Your task to perform on an android device: make emails show in primary in the gmail app Image 0: 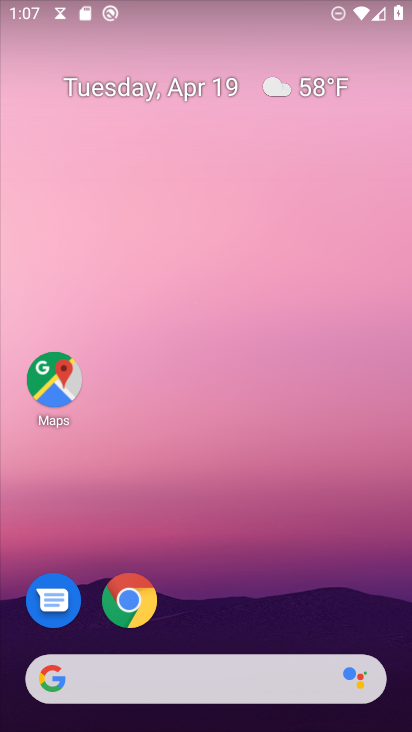
Step 0: drag from (257, 675) to (51, 2)
Your task to perform on an android device: make emails show in primary in the gmail app Image 1: 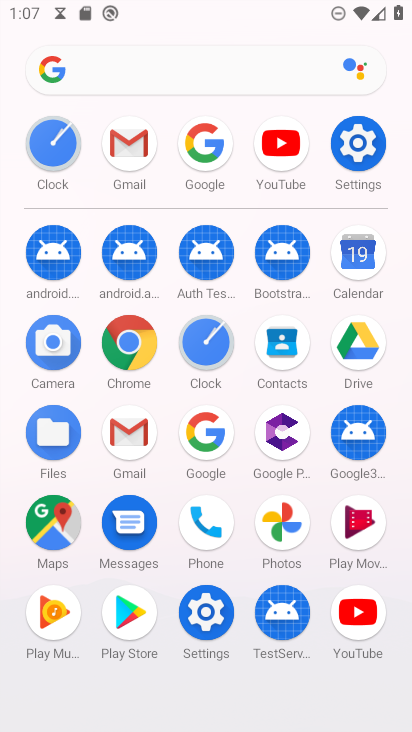
Step 1: click (125, 437)
Your task to perform on an android device: make emails show in primary in the gmail app Image 2: 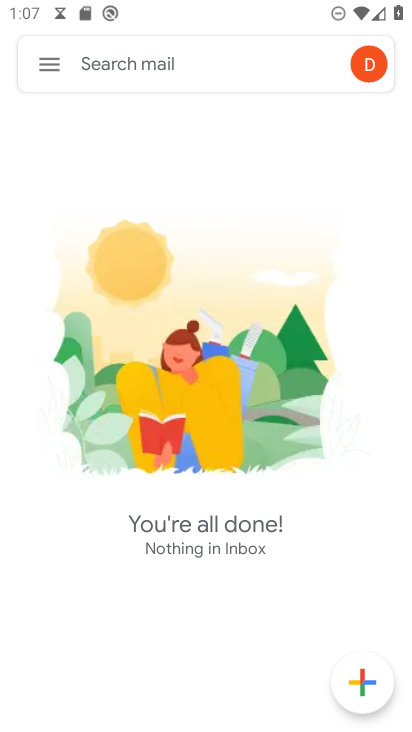
Step 2: click (46, 81)
Your task to perform on an android device: make emails show in primary in the gmail app Image 3: 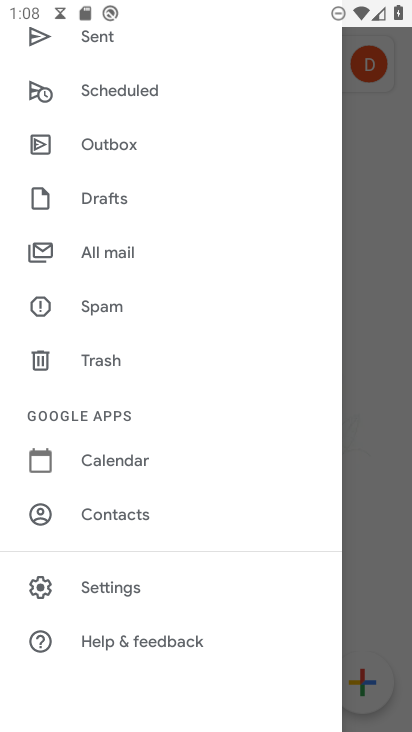
Step 3: click (118, 588)
Your task to perform on an android device: make emails show in primary in the gmail app Image 4: 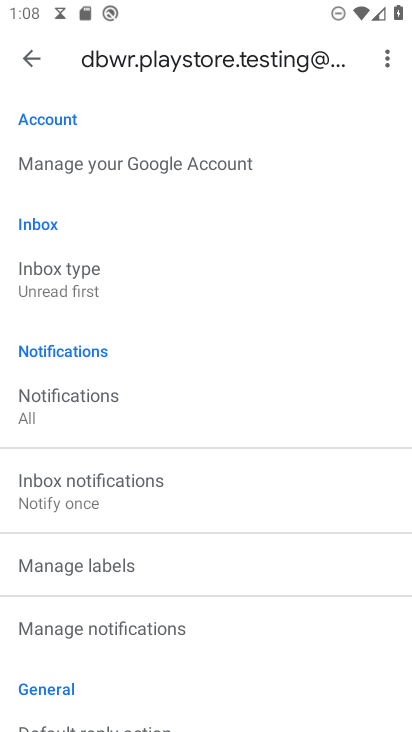
Step 4: task complete